Your task to perform on an android device: Go to calendar. Show me events next week Image 0: 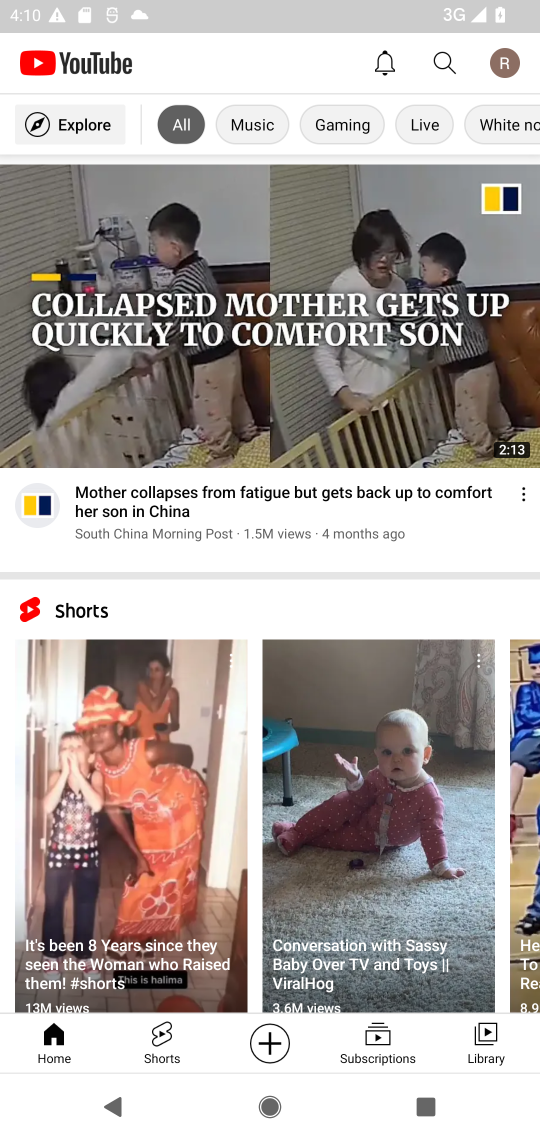
Step 0: press home button
Your task to perform on an android device: Go to calendar. Show me events next week Image 1: 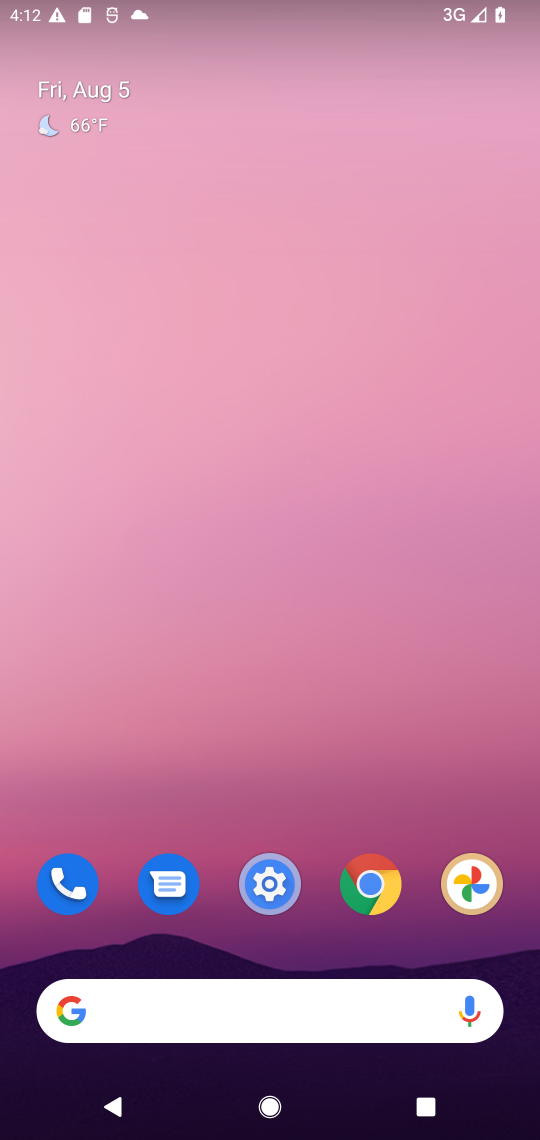
Step 1: drag from (405, 917) to (214, 0)
Your task to perform on an android device: Go to calendar. Show me events next week Image 2: 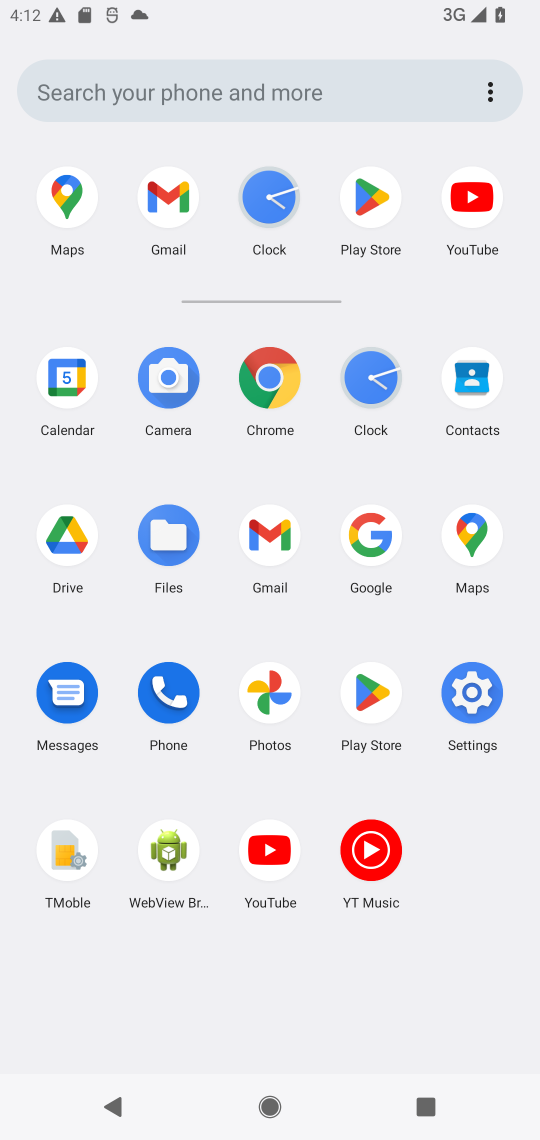
Step 2: click (71, 391)
Your task to perform on an android device: Go to calendar. Show me events next week Image 3: 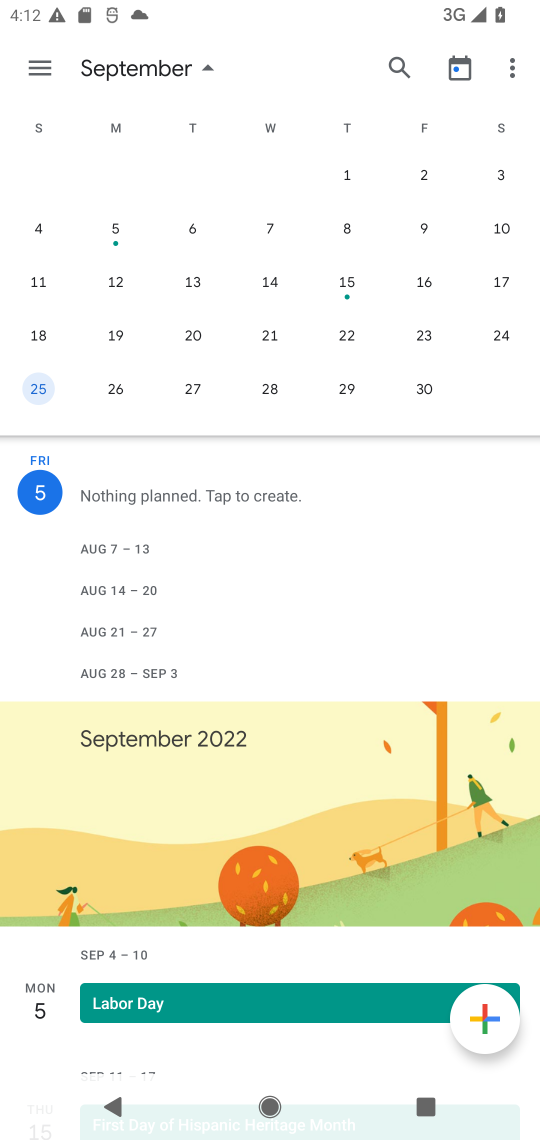
Step 3: task complete